Your task to perform on an android device: turn vacation reply on in the gmail app Image 0: 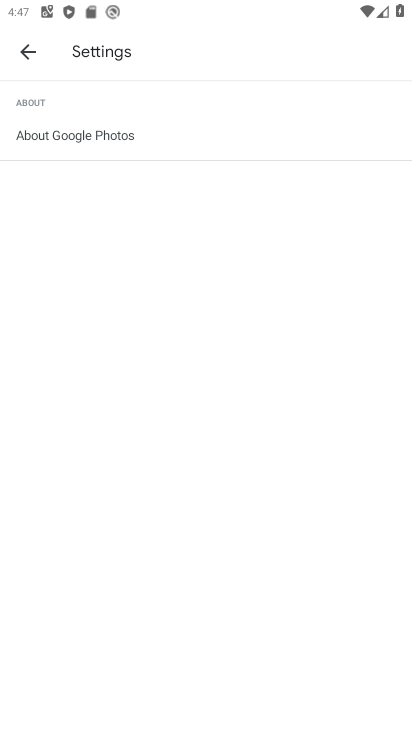
Step 0: press home button
Your task to perform on an android device: turn vacation reply on in the gmail app Image 1: 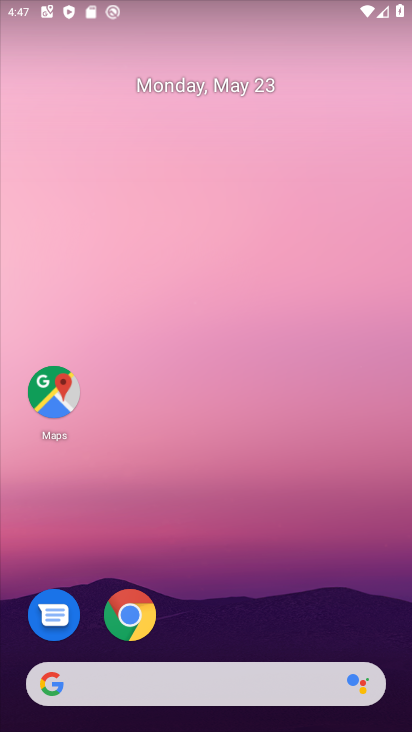
Step 1: drag from (208, 632) to (327, 139)
Your task to perform on an android device: turn vacation reply on in the gmail app Image 2: 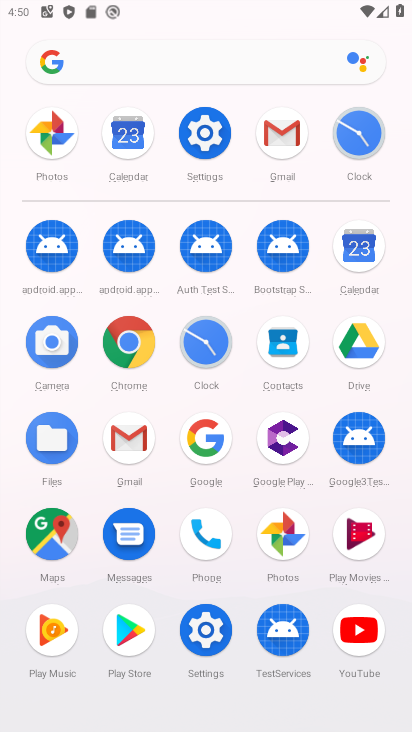
Step 2: click (129, 430)
Your task to perform on an android device: turn vacation reply on in the gmail app Image 3: 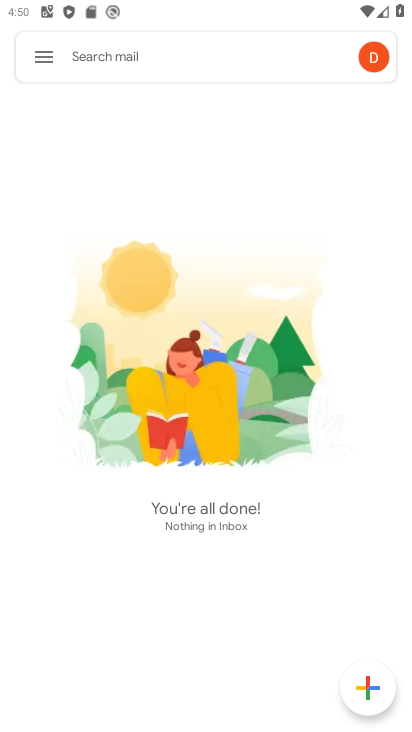
Step 3: click (42, 51)
Your task to perform on an android device: turn vacation reply on in the gmail app Image 4: 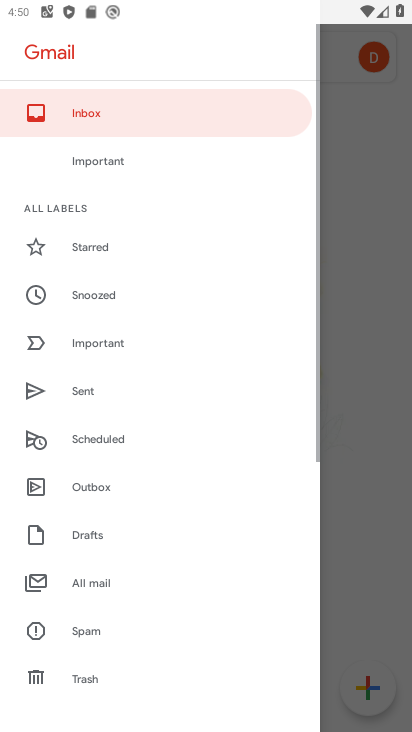
Step 4: drag from (96, 632) to (158, 88)
Your task to perform on an android device: turn vacation reply on in the gmail app Image 5: 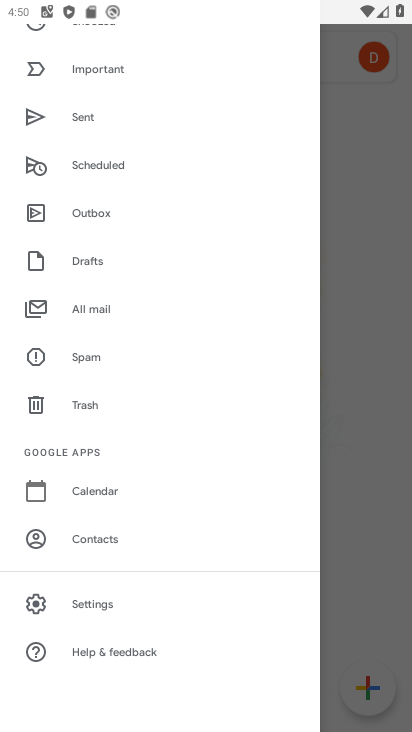
Step 5: click (103, 600)
Your task to perform on an android device: turn vacation reply on in the gmail app Image 6: 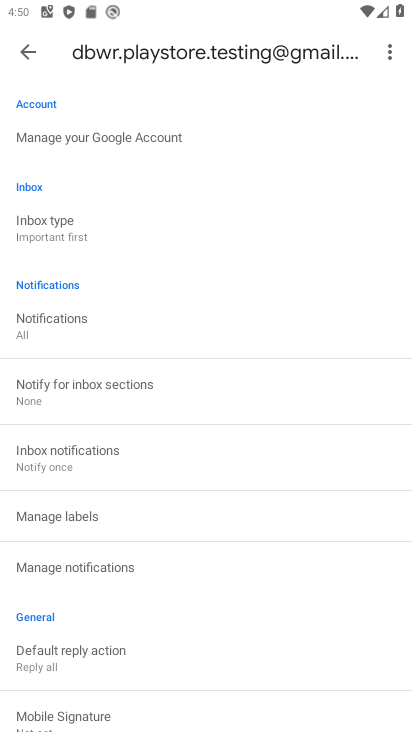
Step 6: drag from (98, 655) to (206, 88)
Your task to perform on an android device: turn vacation reply on in the gmail app Image 7: 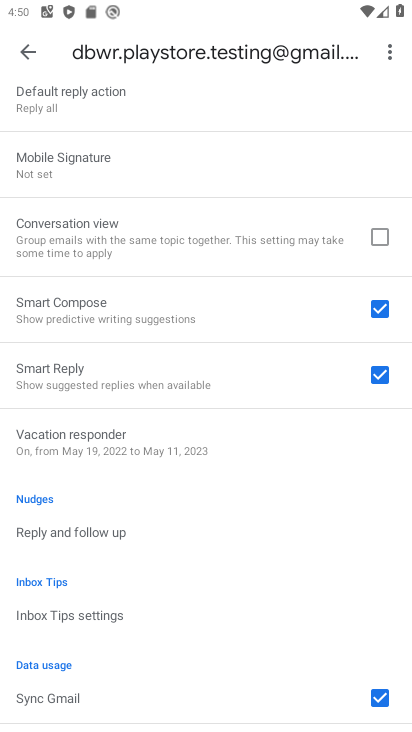
Step 7: click (143, 423)
Your task to perform on an android device: turn vacation reply on in the gmail app Image 8: 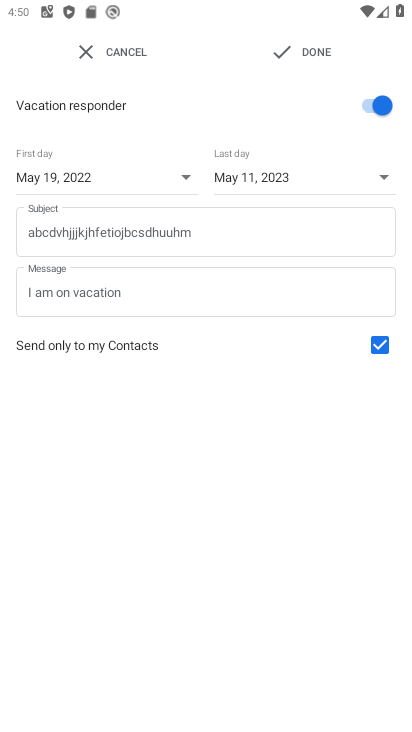
Step 8: task complete